Your task to perform on an android device: turn on sleep mode Image 0: 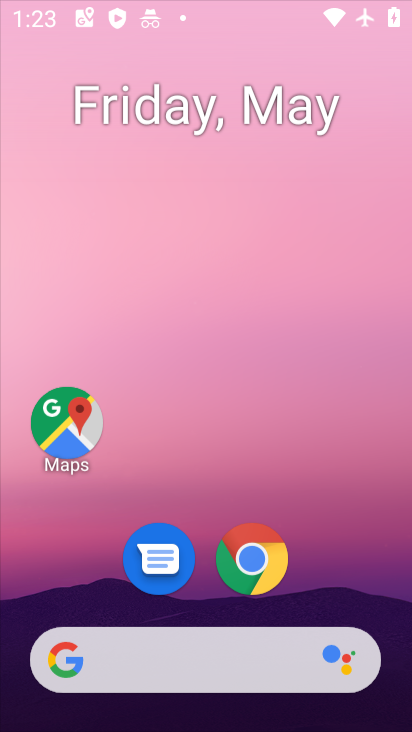
Step 0: press home button
Your task to perform on an android device: turn on sleep mode Image 1: 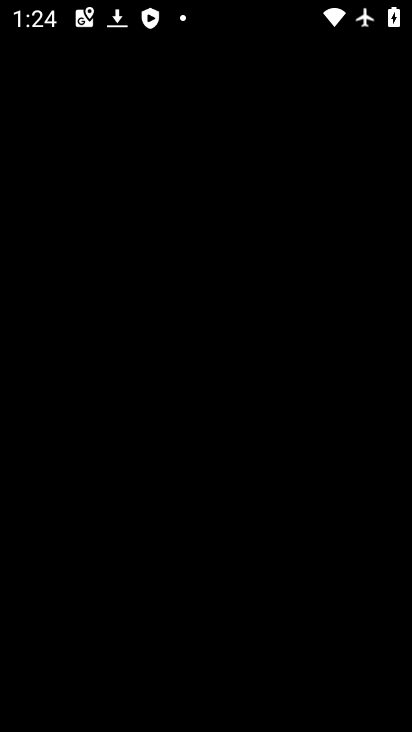
Step 1: press home button
Your task to perform on an android device: turn on sleep mode Image 2: 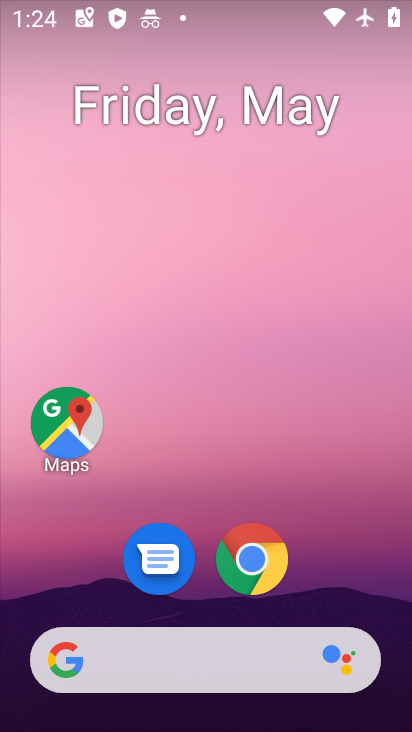
Step 2: drag from (319, 545) to (350, 85)
Your task to perform on an android device: turn on sleep mode Image 3: 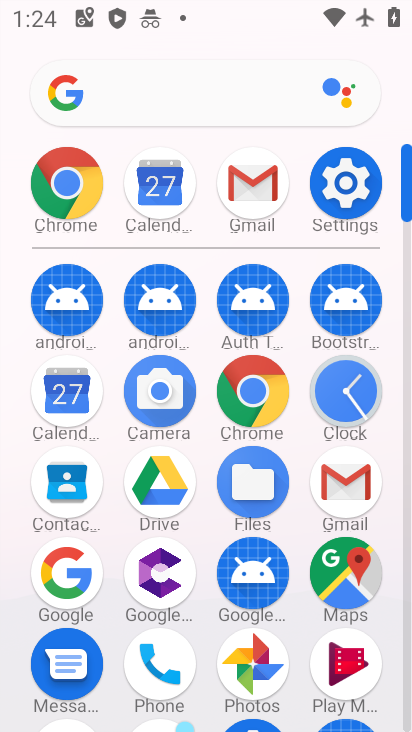
Step 3: click (349, 177)
Your task to perform on an android device: turn on sleep mode Image 4: 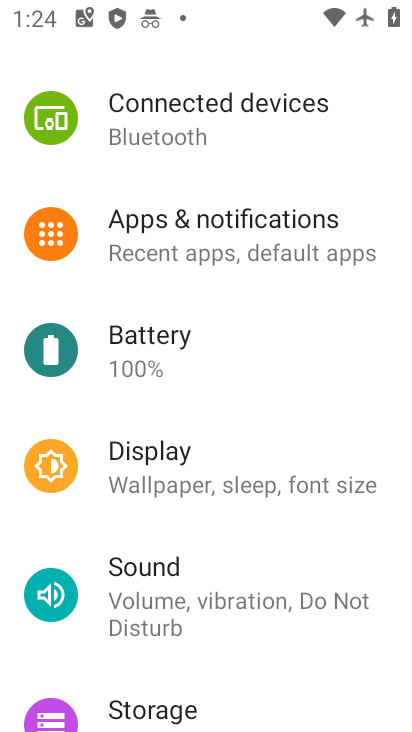
Step 4: click (309, 452)
Your task to perform on an android device: turn on sleep mode Image 5: 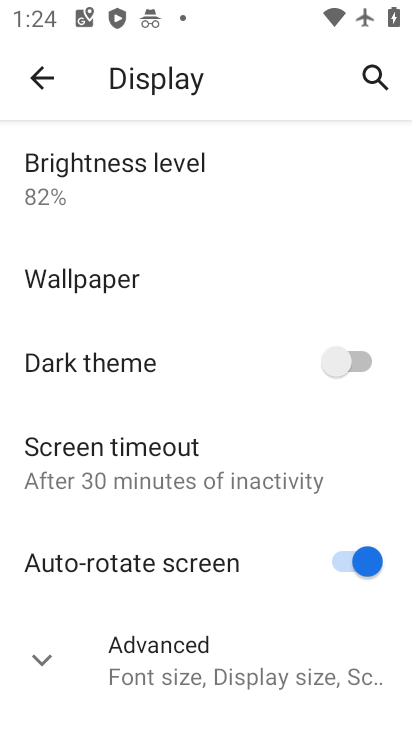
Step 5: click (209, 447)
Your task to perform on an android device: turn on sleep mode Image 6: 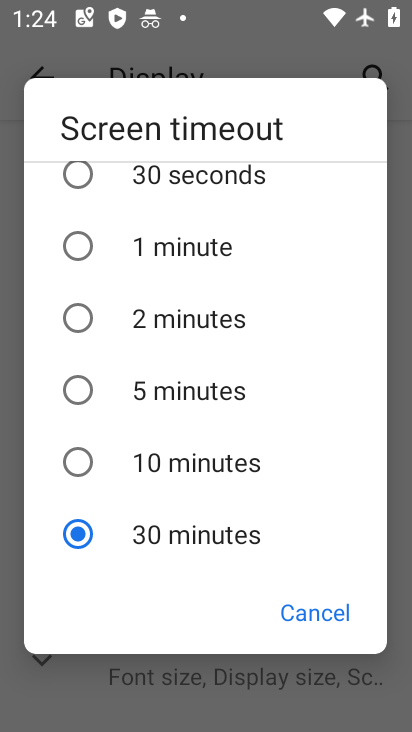
Step 6: task complete